Your task to perform on an android device: toggle location history Image 0: 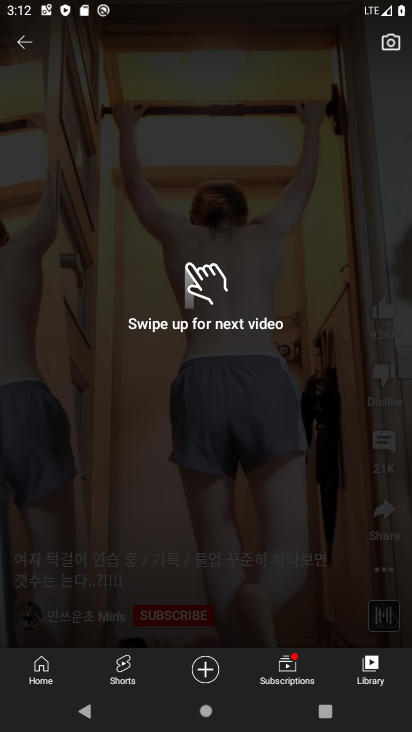
Step 0: click (230, 289)
Your task to perform on an android device: toggle location history Image 1: 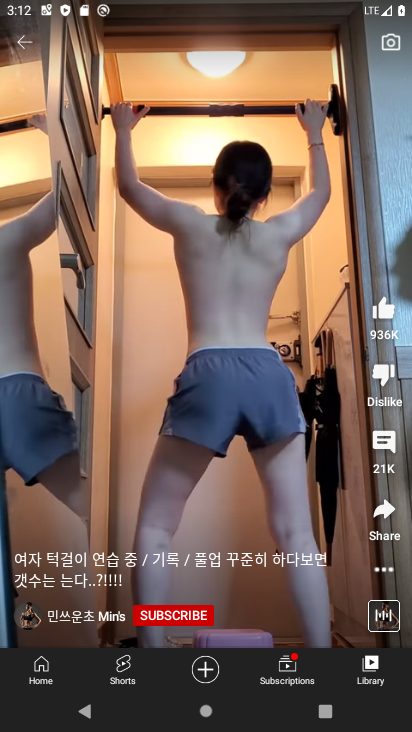
Step 1: task complete